Your task to perform on an android device: Open Chrome and go to settings Image 0: 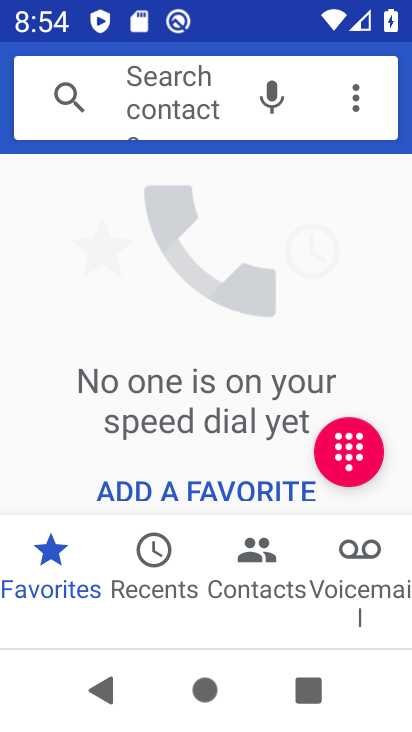
Step 0: press home button
Your task to perform on an android device: Open Chrome and go to settings Image 1: 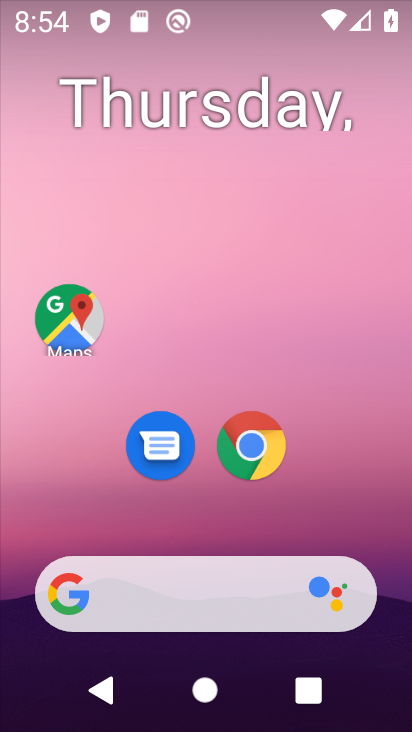
Step 1: click (255, 454)
Your task to perform on an android device: Open Chrome and go to settings Image 2: 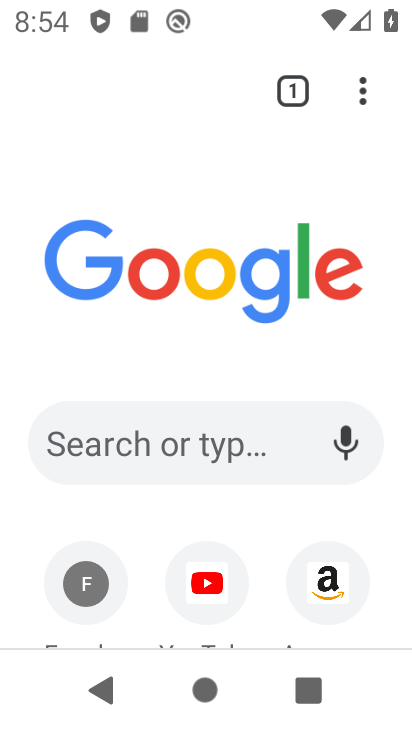
Step 2: click (366, 85)
Your task to perform on an android device: Open Chrome and go to settings Image 3: 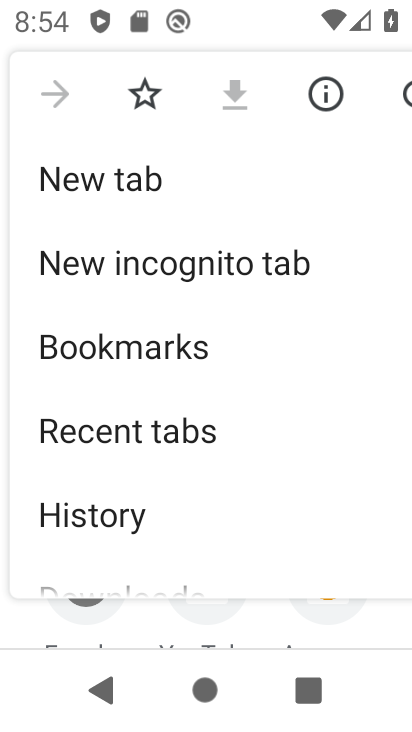
Step 3: drag from (4, 528) to (244, 81)
Your task to perform on an android device: Open Chrome and go to settings Image 4: 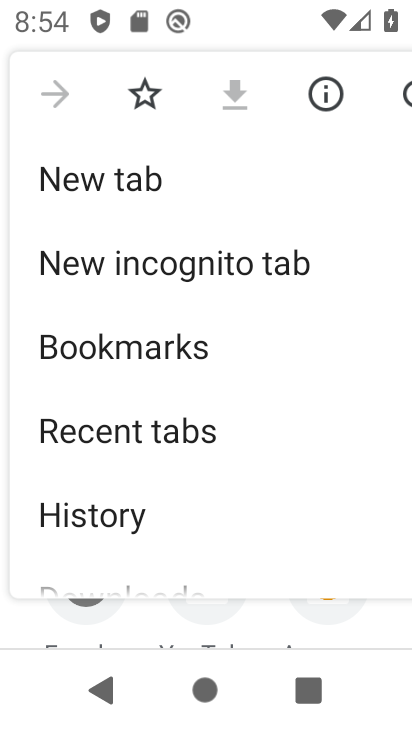
Step 4: drag from (0, 555) to (339, 46)
Your task to perform on an android device: Open Chrome and go to settings Image 5: 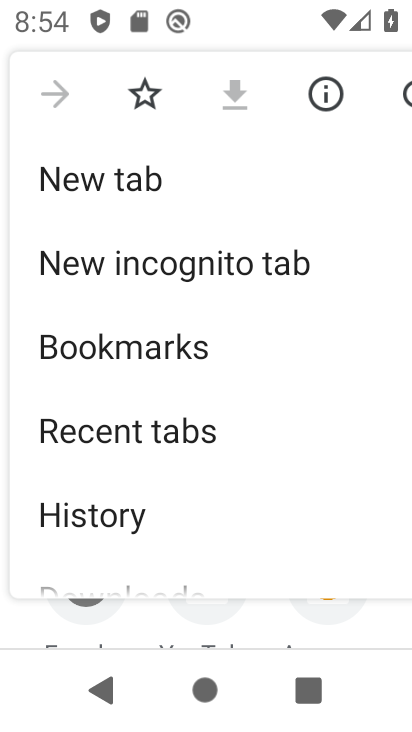
Step 5: drag from (15, 526) to (364, 57)
Your task to perform on an android device: Open Chrome and go to settings Image 6: 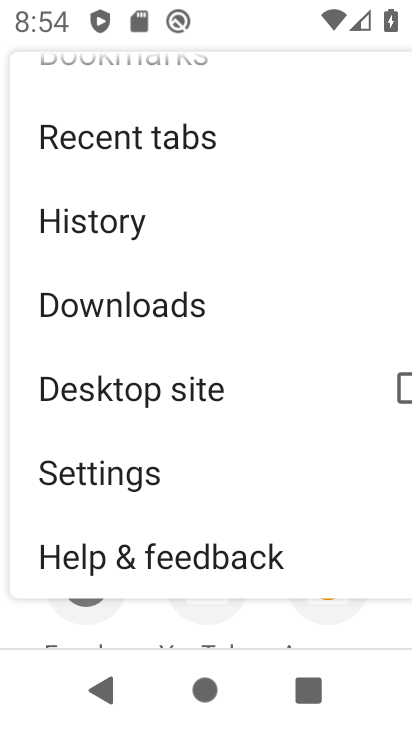
Step 6: click (72, 473)
Your task to perform on an android device: Open Chrome and go to settings Image 7: 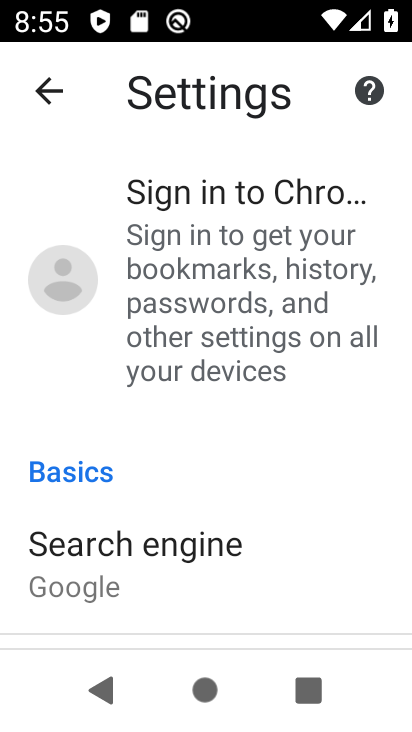
Step 7: task complete